Your task to perform on an android device: find snoozed emails in the gmail app Image 0: 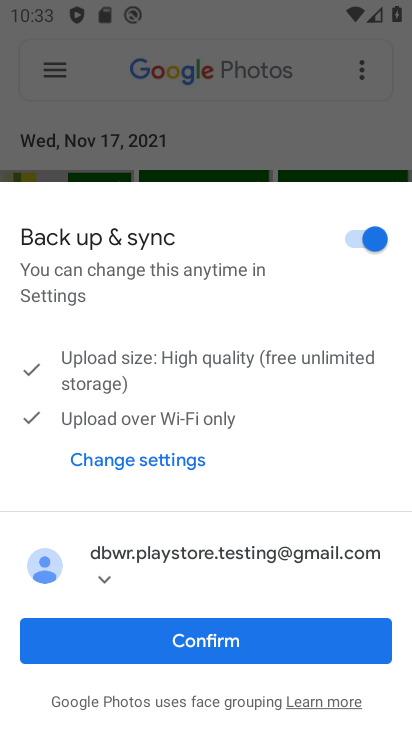
Step 0: press home button
Your task to perform on an android device: find snoozed emails in the gmail app Image 1: 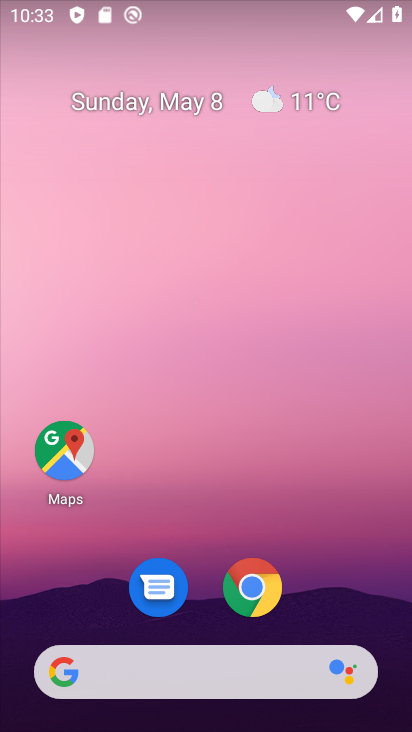
Step 1: drag from (275, 627) to (261, 372)
Your task to perform on an android device: find snoozed emails in the gmail app Image 2: 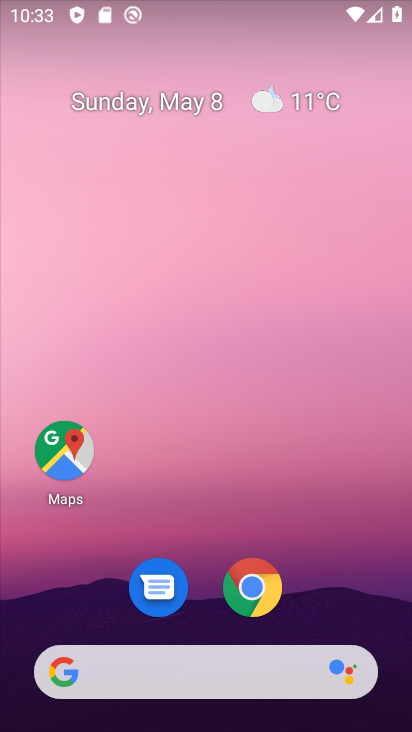
Step 2: drag from (224, 669) to (227, 148)
Your task to perform on an android device: find snoozed emails in the gmail app Image 3: 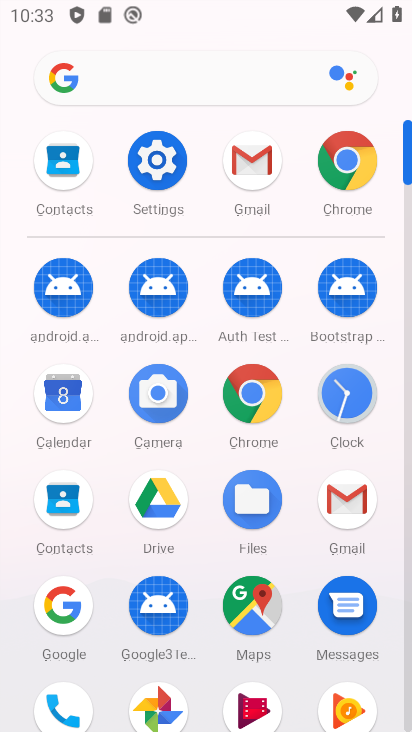
Step 3: click (349, 503)
Your task to perform on an android device: find snoozed emails in the gmail app Image 4: 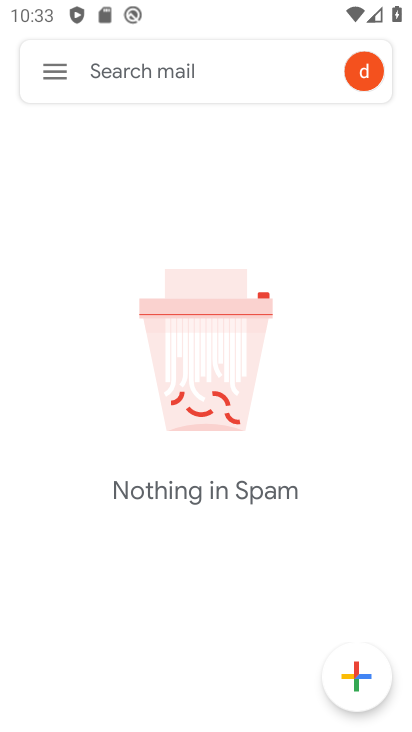
Step 4: click (329, 462)
Your task to perform on an android device: find snoozed emails in the gmail app Image 5: 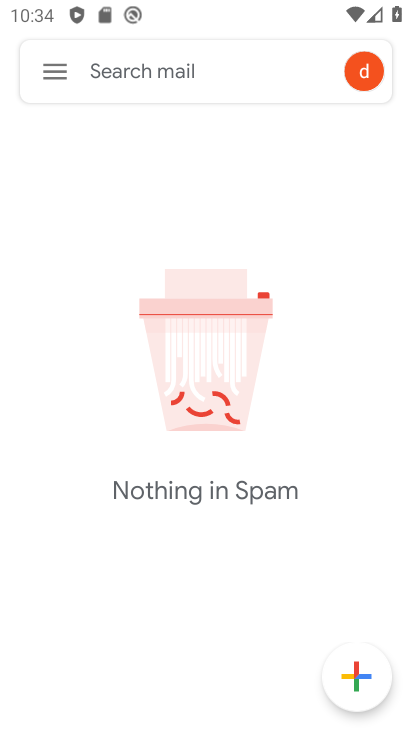
Step 5: click (72, 405)
Your task to perform on an android device: find snoozed emails in the gmail app Image 6: 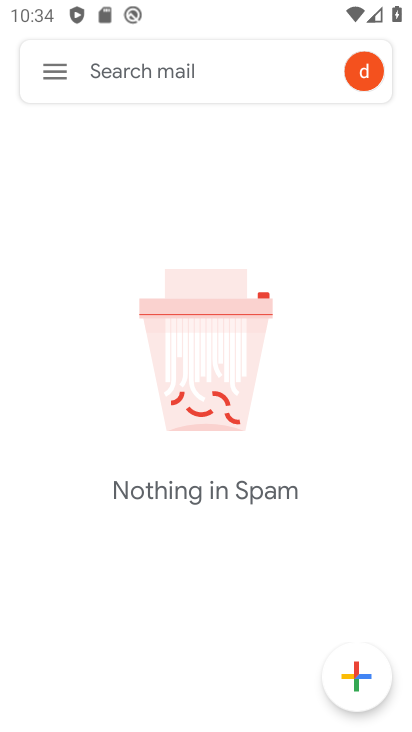
Step 6: click (72, 405)
Your task to perform on an android device: find snoozed emails in the gmail app Image 7: 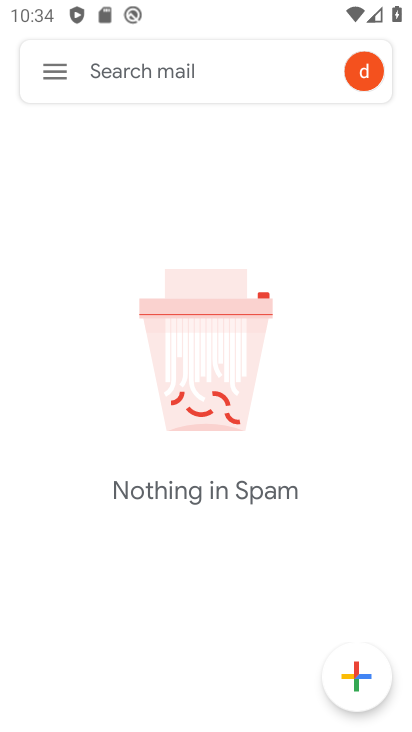
Step 7: click (42, 70)
Your task to perform on an android device: find snoozed emails in the gmail app Image 8: 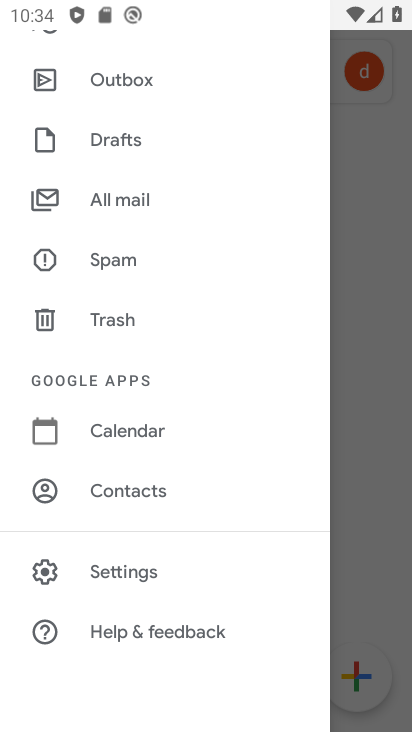
Step 8: drag from (132, 297) to (171, 572)
Your task to perform on an android device: find snoozed emails in the gmail app Image 9: 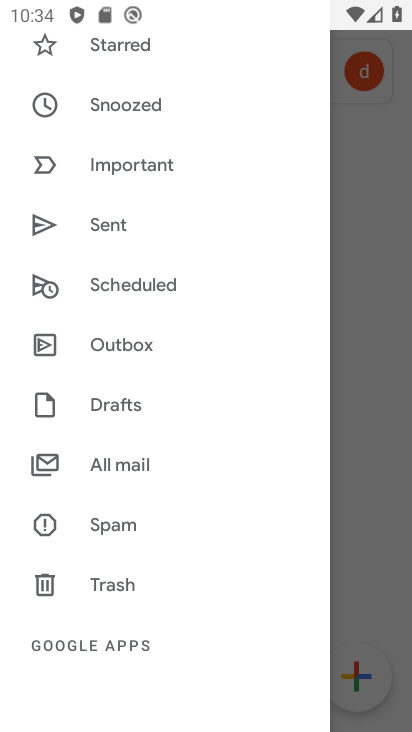
Step 9: click (121, 111)
Your task to perform on an android device: find snoozed emails in the gmail app Image 10: 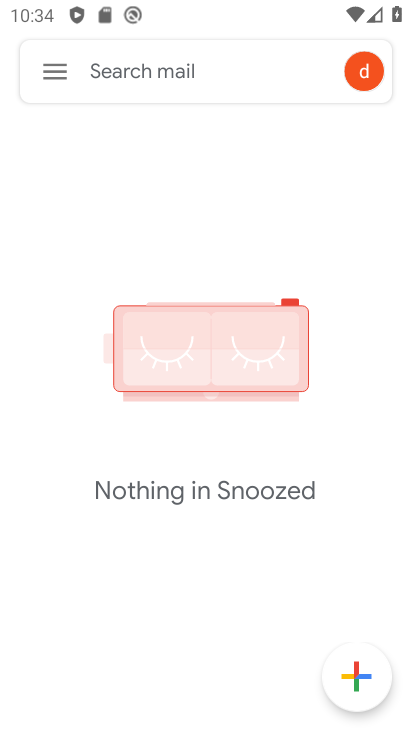
Step 10: task complete